Your task to perform on an android device: Go to sound settings Image 0: 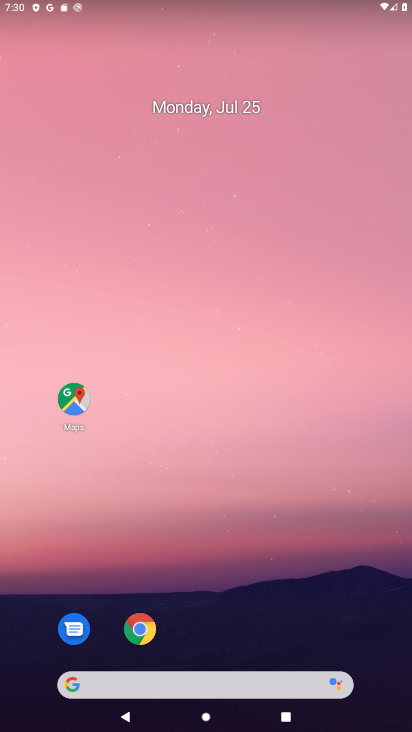
Step 0: drag from (241, 633) to (229, 141)
Your task to perform on an android device: Go to sound settings Image 1: 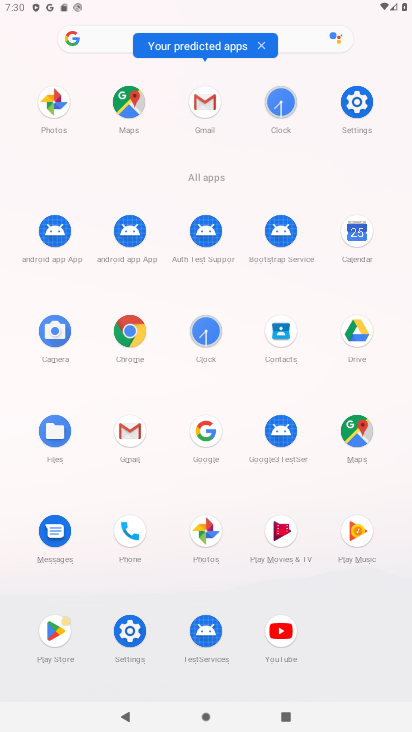
Step 1: click (353, 129)
Your task to perform on an android device: Go to sound settings Image 2: 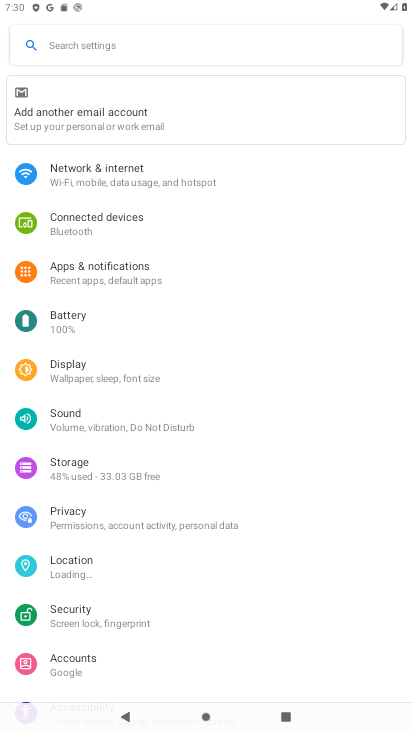
Step 2: click (154, 417)
Your task to perform on an android device: Go to sound settings Image 3: 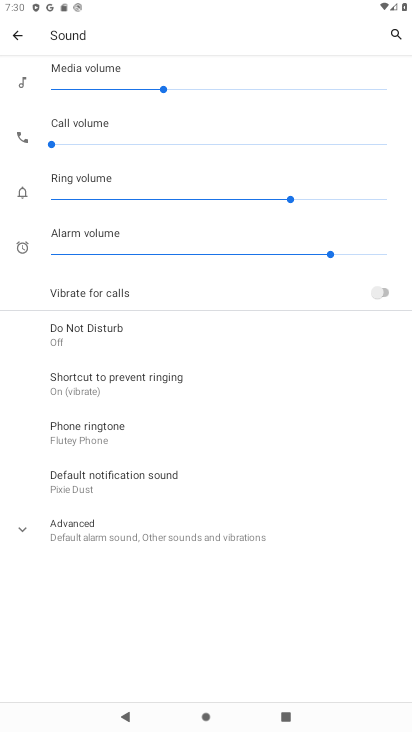
Step 3: task complete